Your task to perform on an android device: Go to Google maps Image 0: 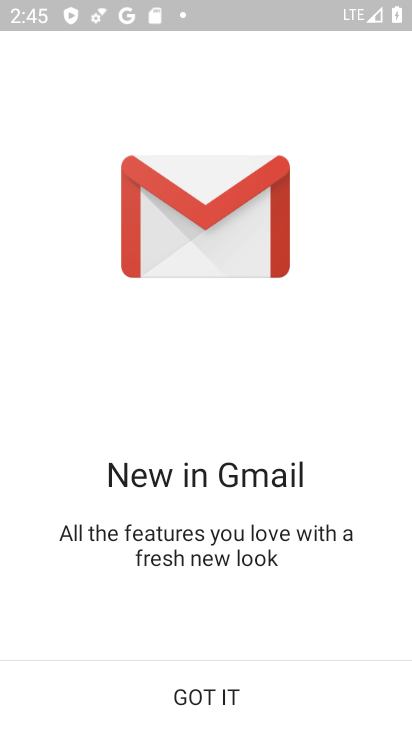
Step 0: press home button
Your task to perform on an android device: Go to Google maps Image 1: 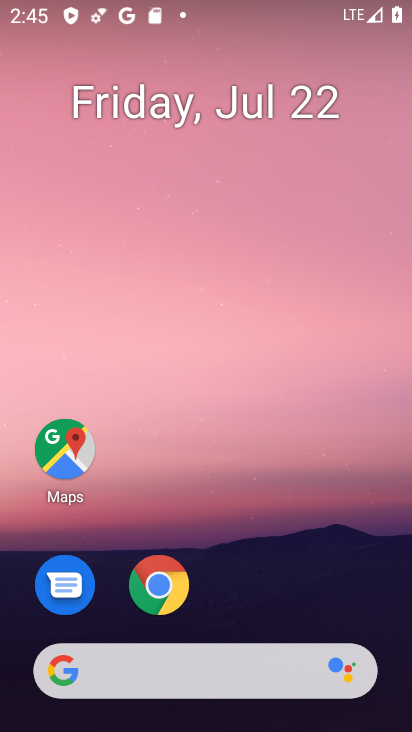
Step 1: click (56, 452)
Your task to perform on an android device: Go to Google maps Image 2: 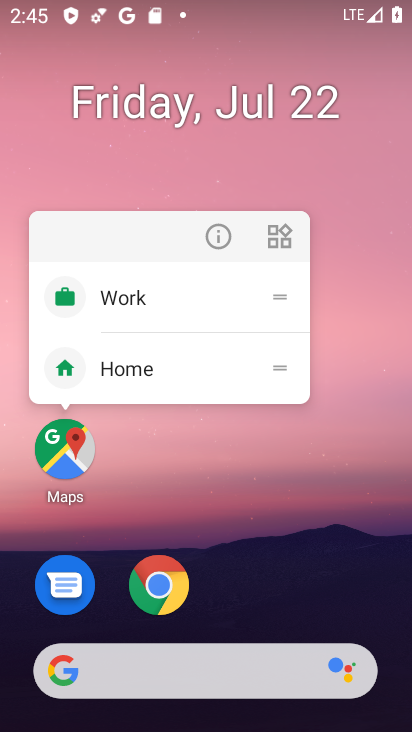
Step 2: click (56, 454)
Your task to perform on an android device: Go to Google maps Image 3: 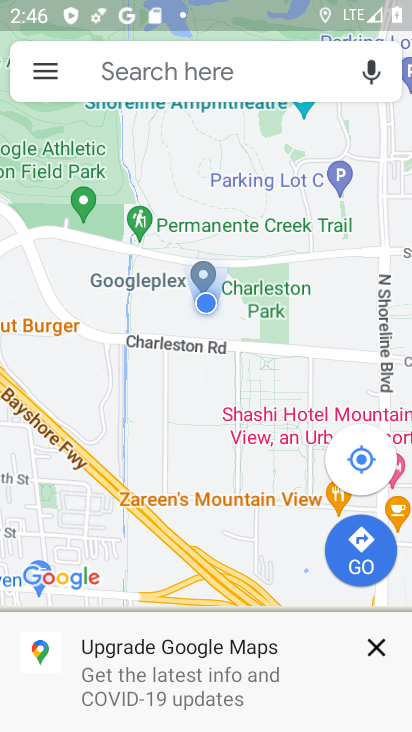
Step 3: task complete